Your task to perform on an android device: Search for vegetarian restaurants on Maps Image 0: 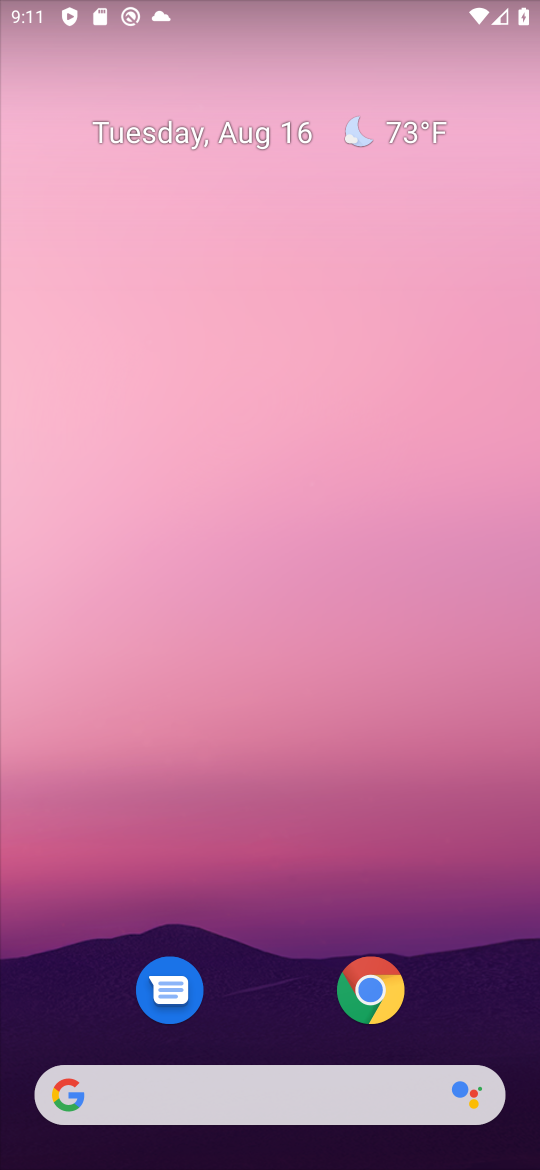
Step 0: drag from (534, 945) to (461, 249)
Your task to perform on an android device: Search for vegetarian restaurants on Maps Image 1: 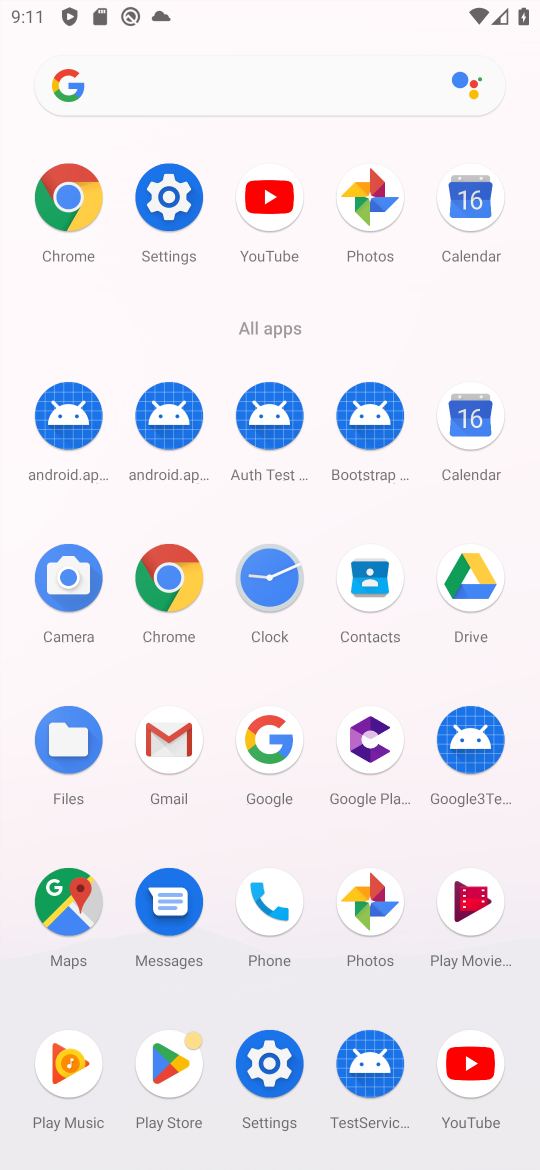
Step 1: click (74, 888)
Your task to perform on an android device: Search for vegetarian restaurants on Maps Image 2: 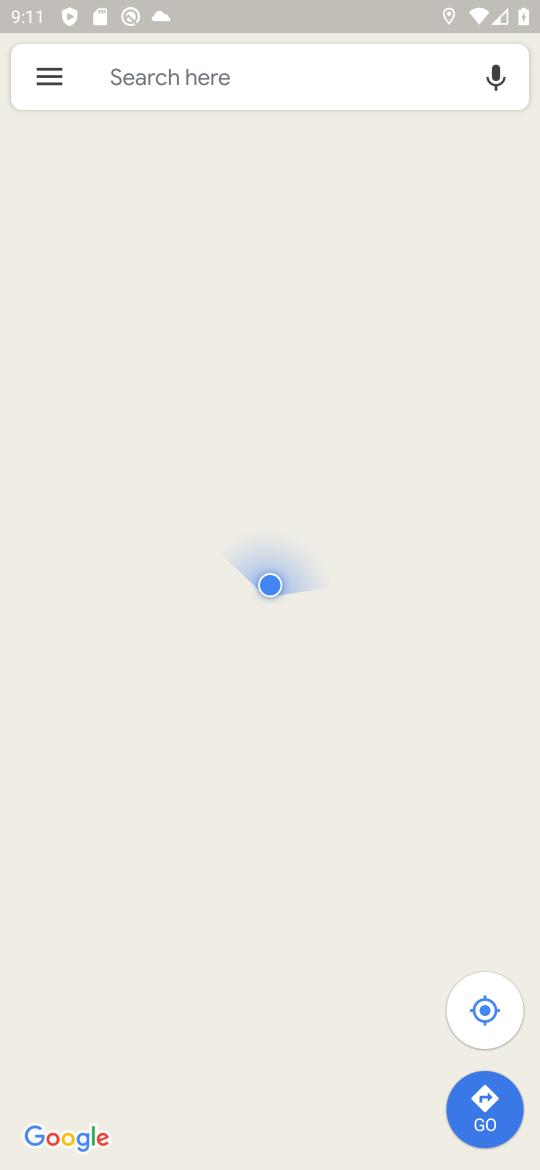
Step 2: click (222, 89)
Your task to perform on an android device: Search for vegetarian restaurants on Maps Image 3: 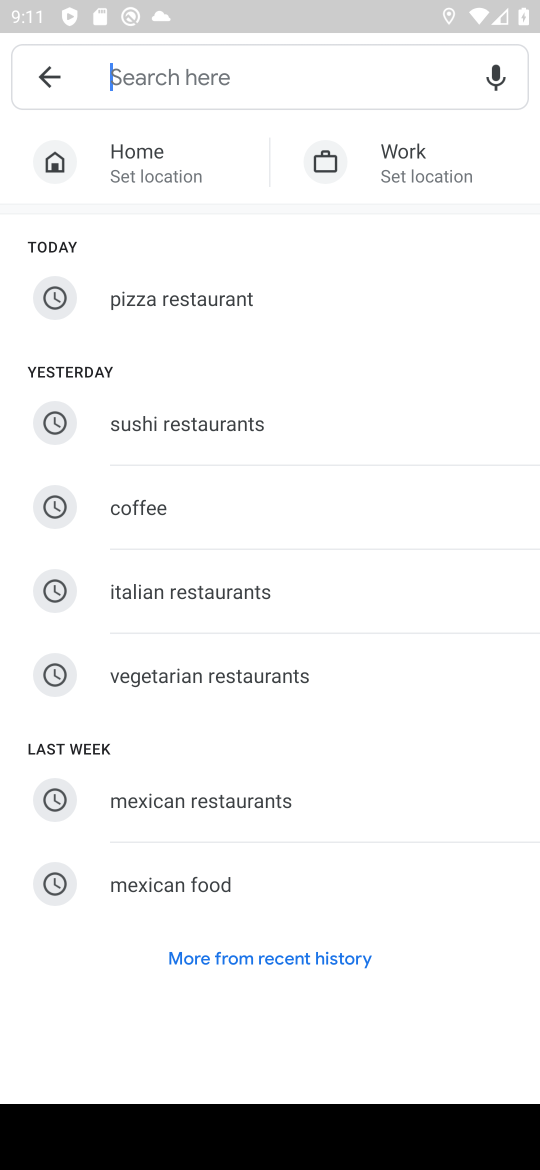
Step 3: click (259, 666)
Your task to perform on an android device: Search for vegetarian restaurants on Maps Image 4: 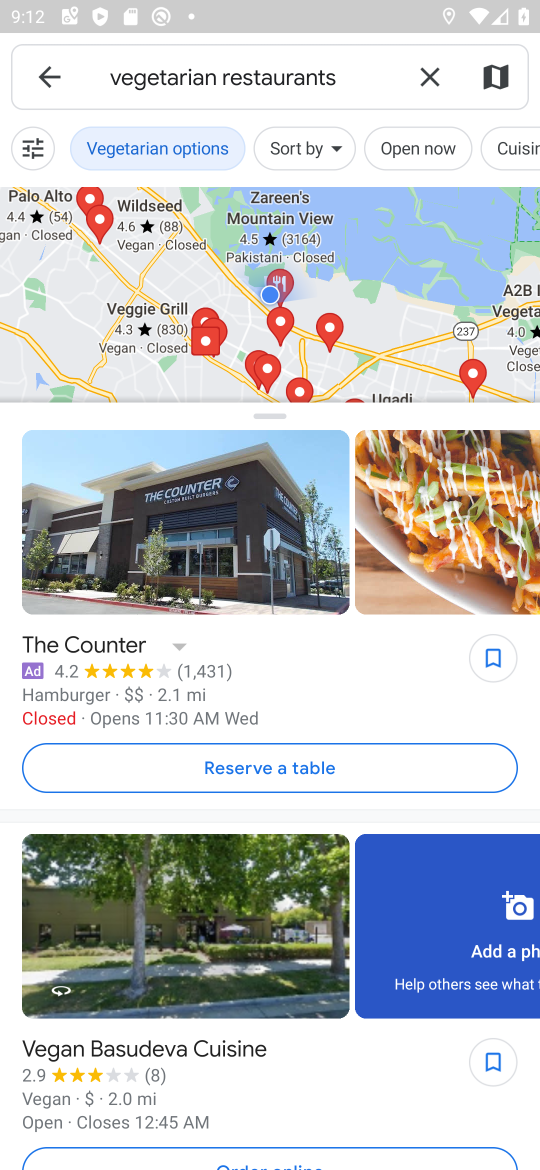
Step 4: task complete